Your task to perform on an android device: uninstall "Life360: Find Family & Friends" Image 0: 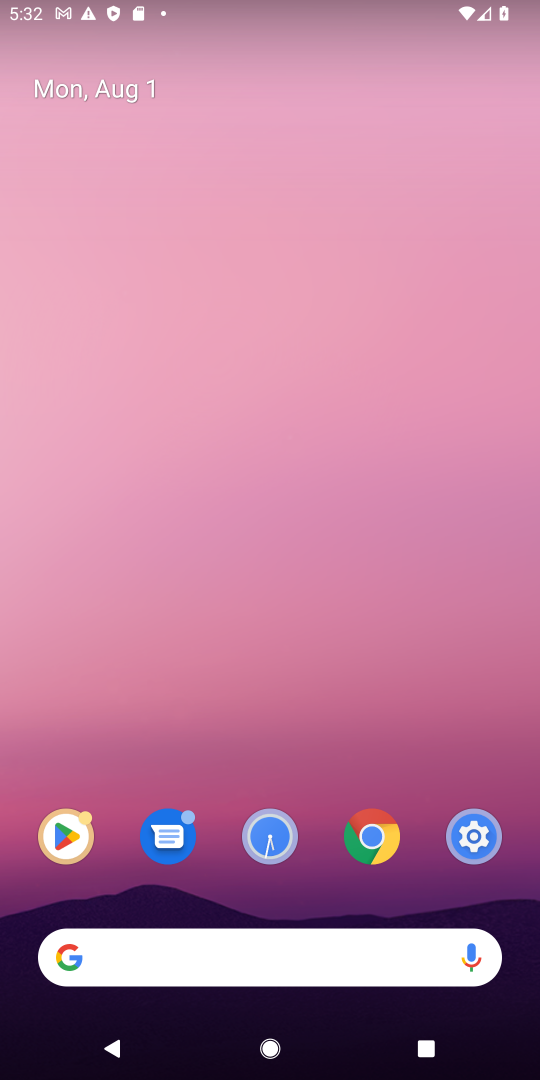
Step 0: click (63, 838)
Your task to perform on an android device: uninstall "Life360: Find Family & Friends" Image 1: 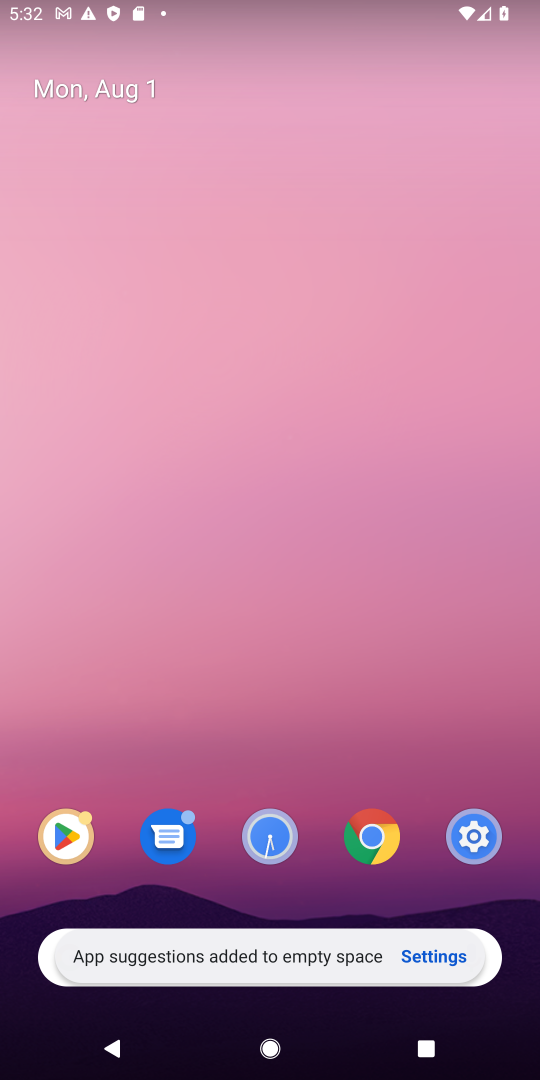
Step 1: press home button
Your task to perform on an android device: uninstall "Life360: Find Family & Friends" Image 2: 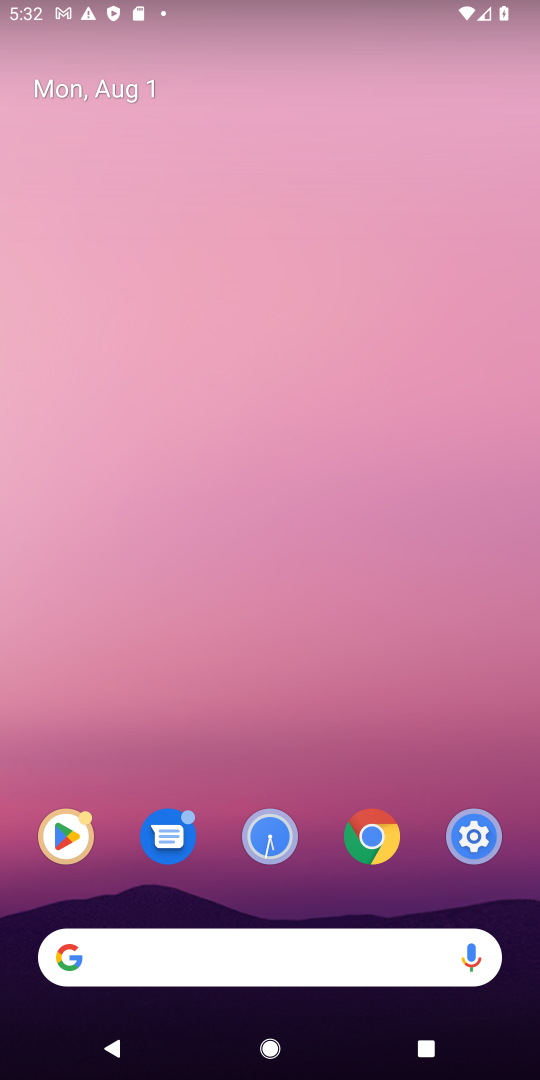
Step 2: click (62, 832)
Your task to perform on an android device: uninstall "Life360: Find Family & Friends" Image 3: 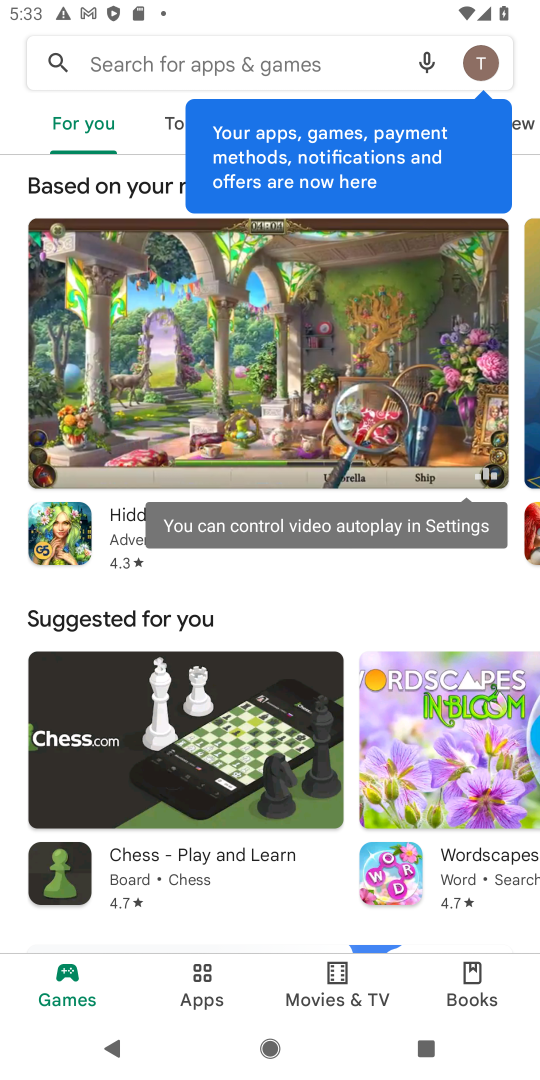
Step 3: click (246, 57)
Your task to perform on an android device: uninstall "Life360: Find Family & Friends" Image 4: 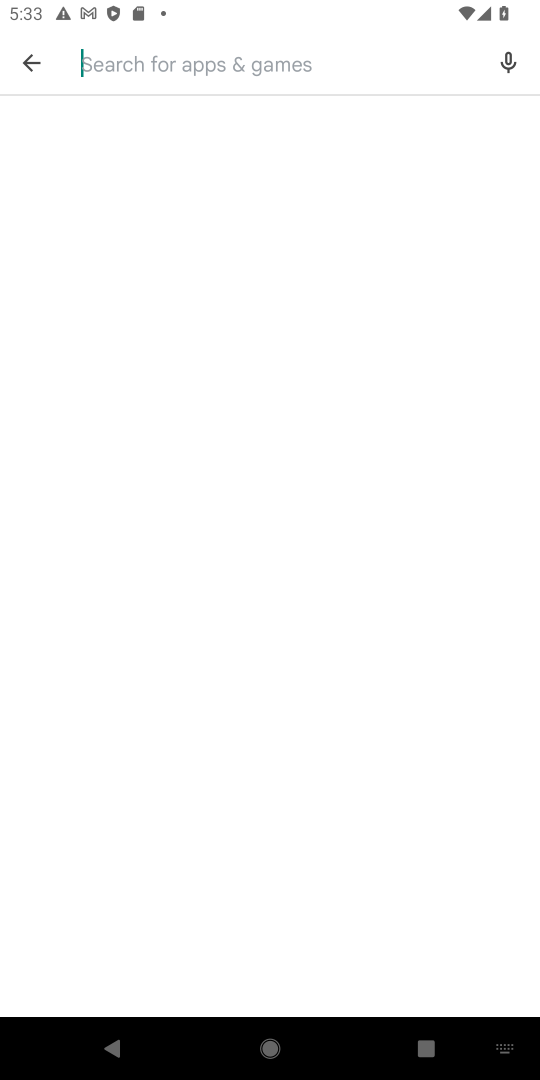
Step 4: click (380, 1076)
Your task to perform on an android device: uninstall "Life360: Find Family & Friends" Image 5: 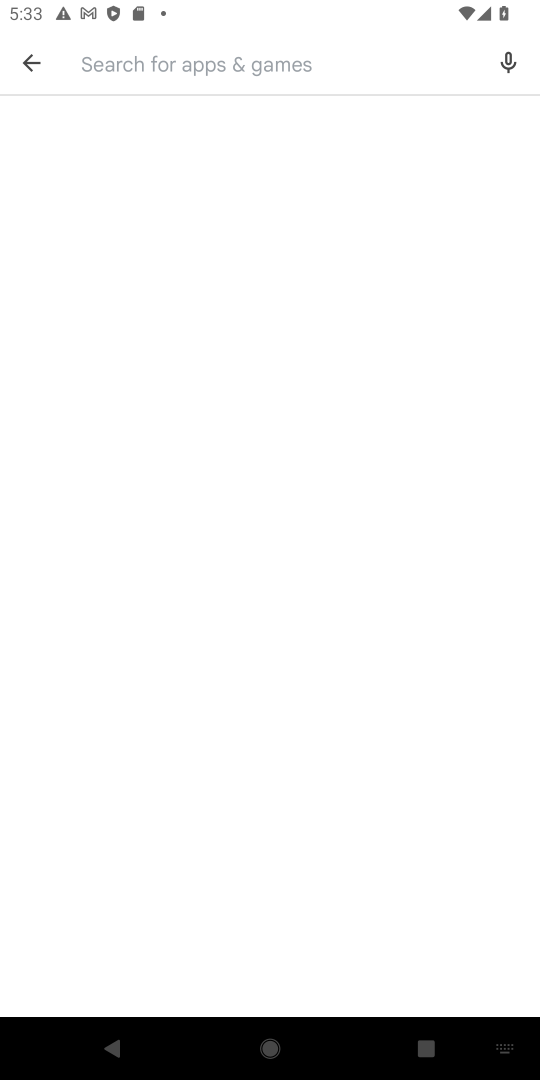
Step 5: type "Life360: Find Family & Friends"
Your task to perform on an android device: uninstall "Life360: Find Family & Friends" Image 6: 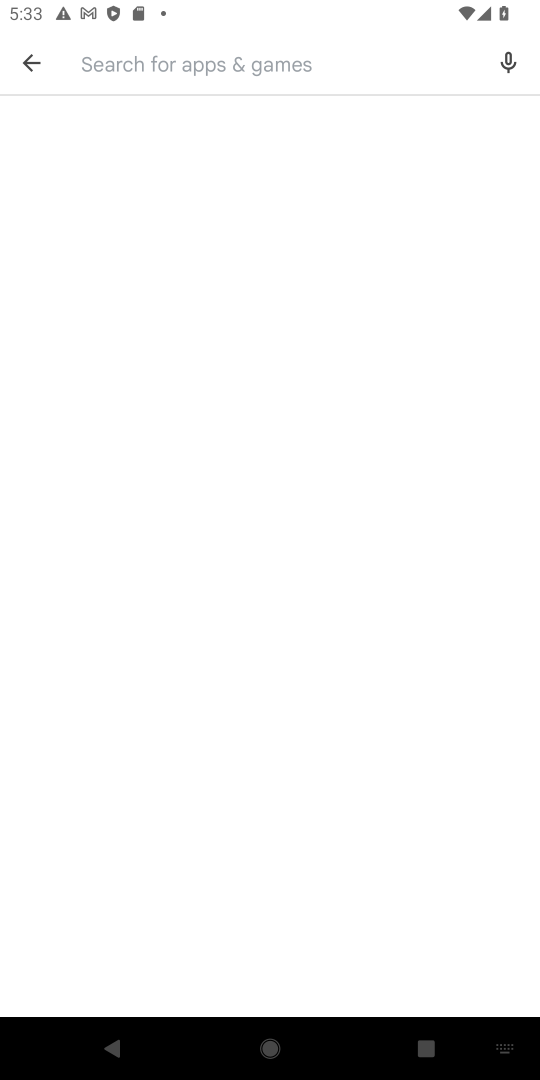
Step 6: click (532, 392)
Your task to perform on an android device: uninstall "Life360: Find Family & Friends" Image 7: 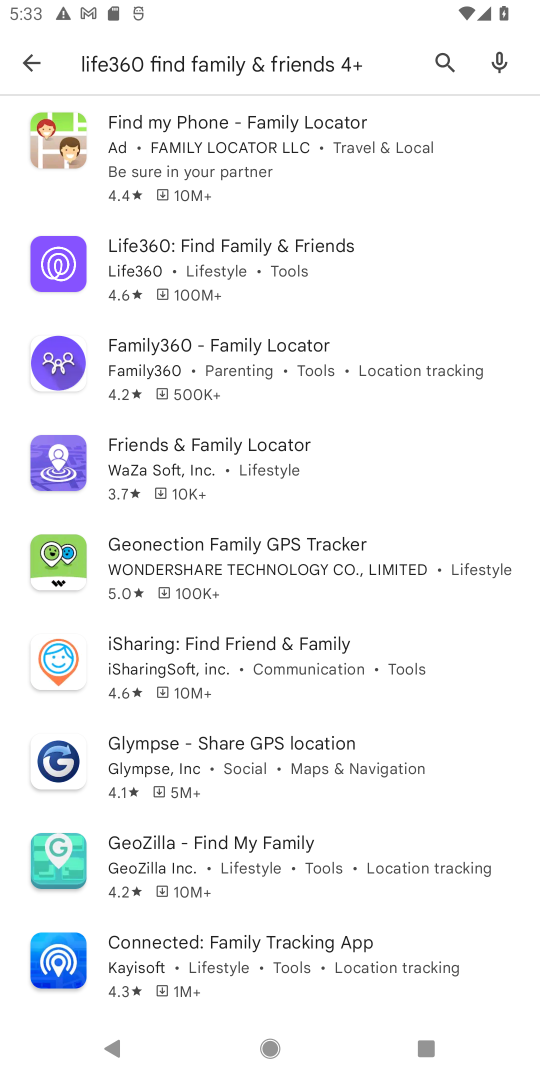
Step 7: click (243, 271)
Your task to perform on an android device: uninstall "Life360: Find Family & Friends" Image 8: 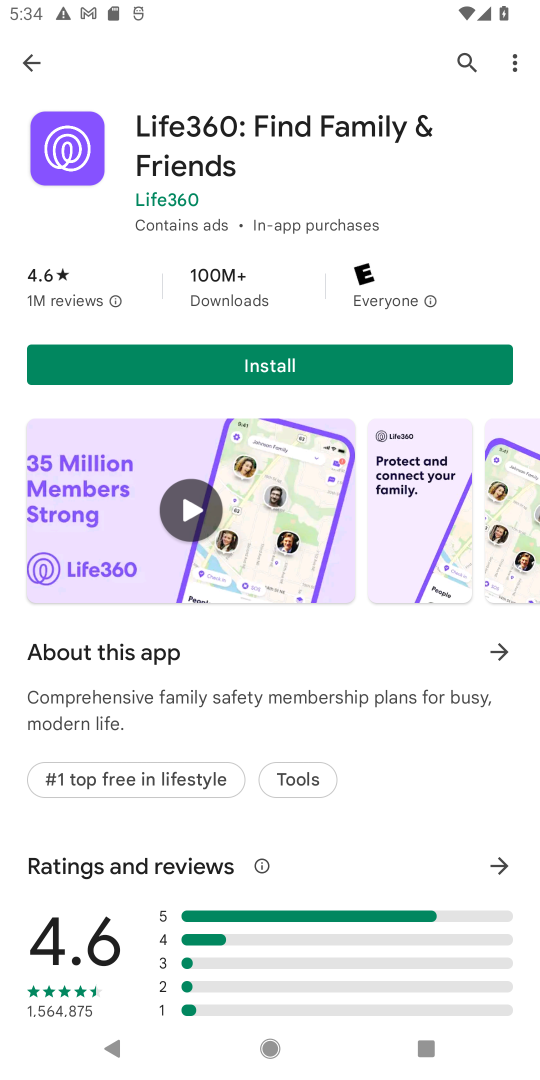
Step 8: task complete